Your task to perform on an android device: Open sound settings Image 0: 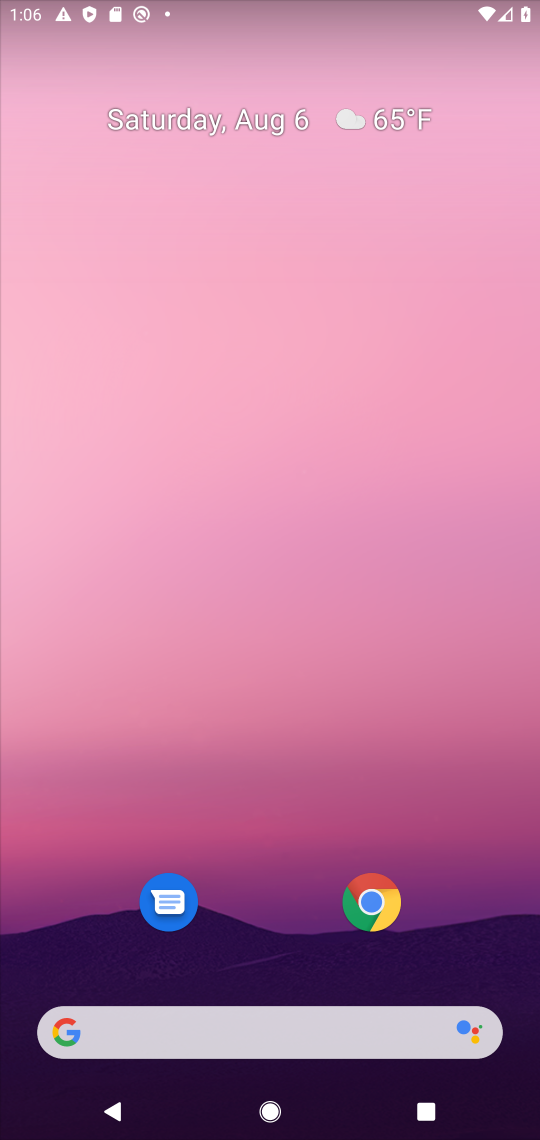
Step 0: click (281, 755)
Your task to perform on an android device: Open sound settings Image 1: 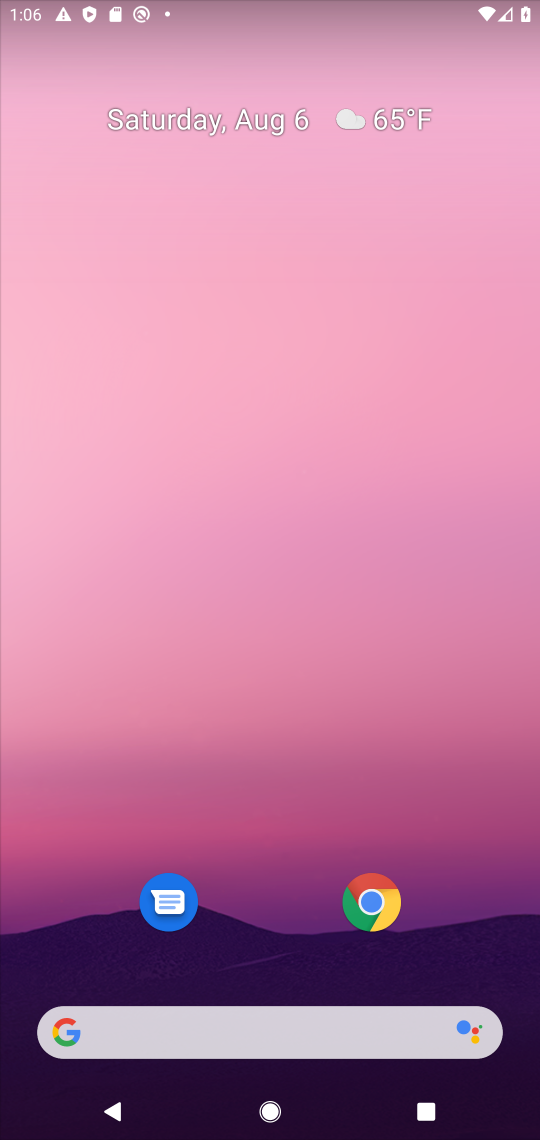
Step 1: drag from (268, 789) to (263, 210)
Your task to perform on an android device: Open sound settings Image 2: 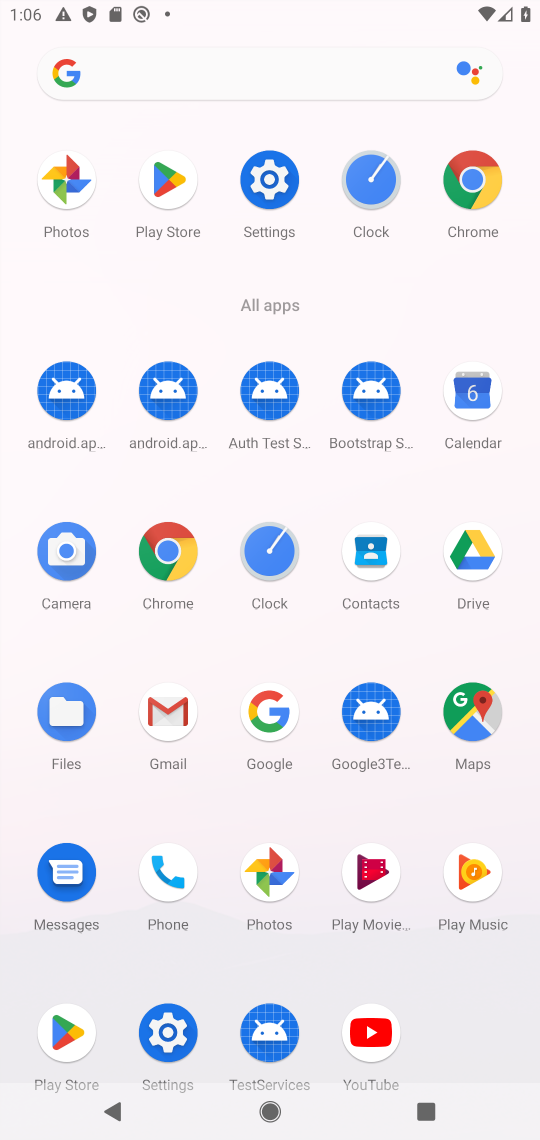
Step 2: click (274, 179)
Your task to perform on an android device: Open sound settings Image 3: 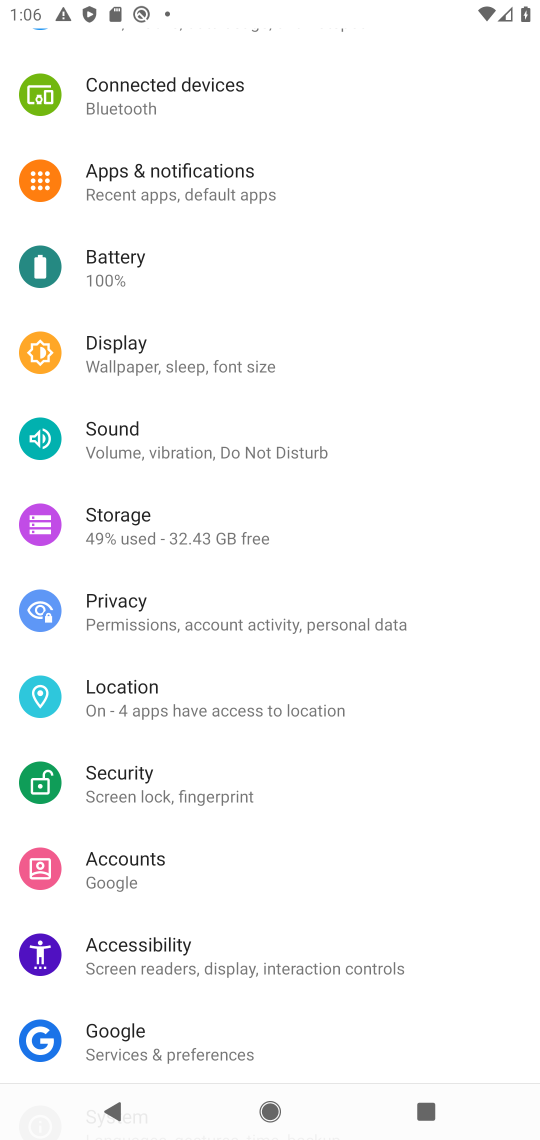
Step 3: click (115, 427)
Your task to perform on an android device: Open sound settings Image 4: 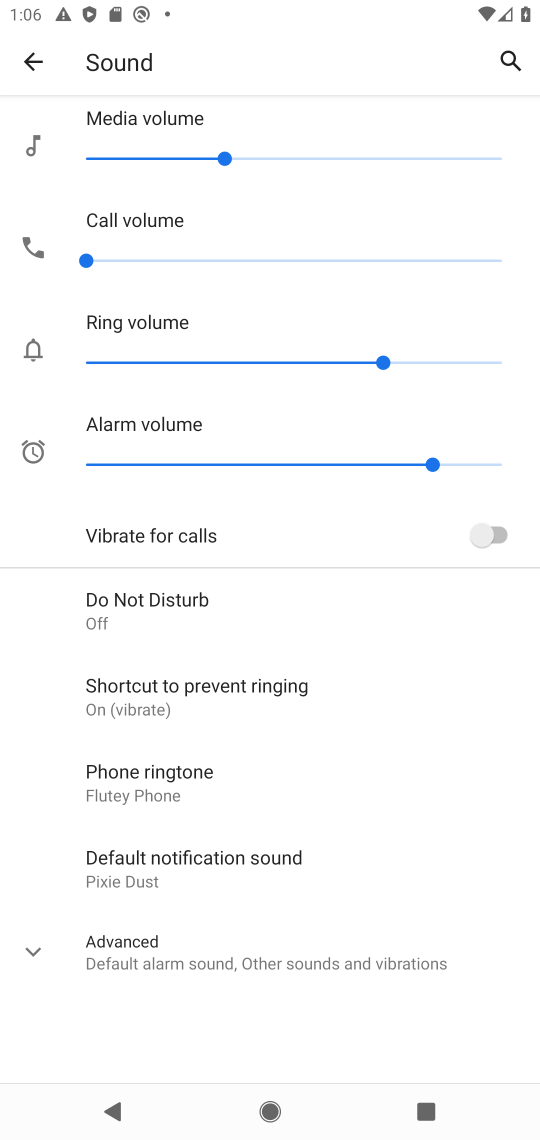
Step 4: task complete